Your task to perform on an android device: turn on notifications settings in the gmail app Image 0: 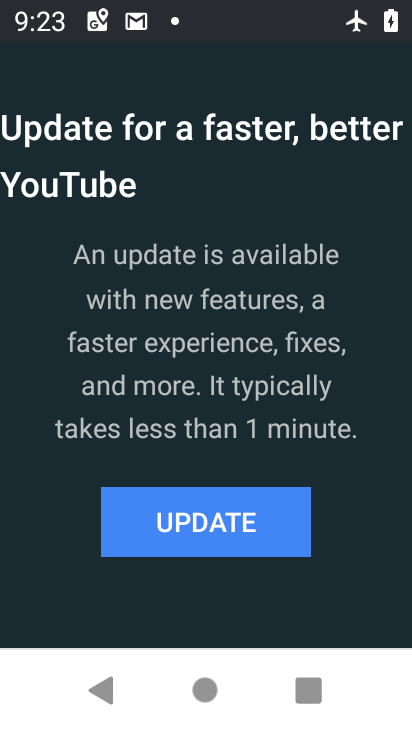
Step 0: press home button
Your task to perform on an android device: turn on notifications settings in the gmail app Image 1: 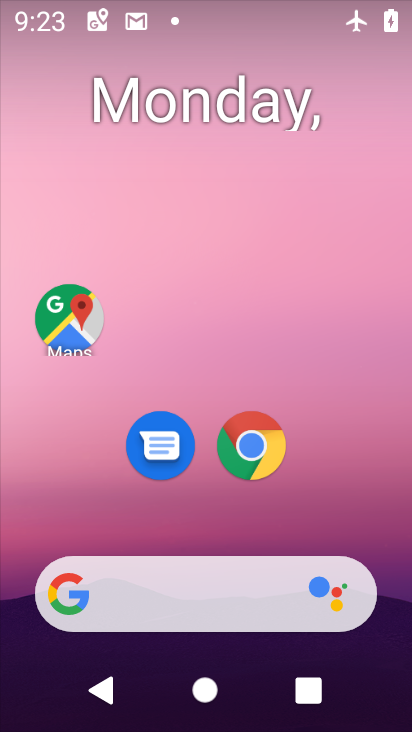
Step 1: drag from (248, 668) to (247, 0)
Your task to perform on an android device: turn on notifications settings in the gmail app Image 2: 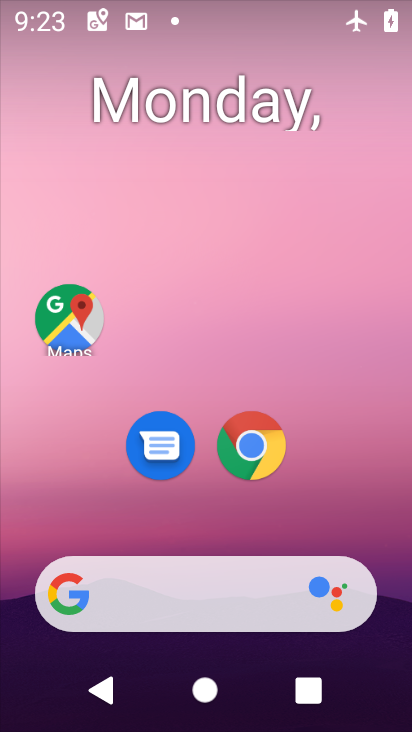
Step 2: drag from (256, 696) to (363, 24)
Your task to perform on an android device: turn on notifications settings in the gmail app Image 3: 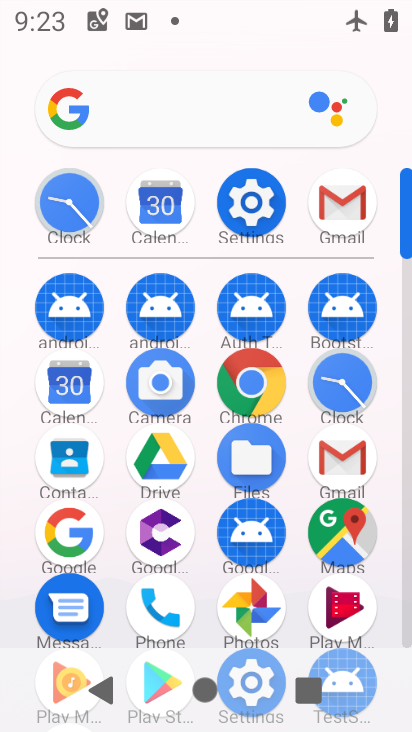
Step 3: click (246, 200)
Your task to perform on an android device: turn on notifications settings in the gmail app Image 4: 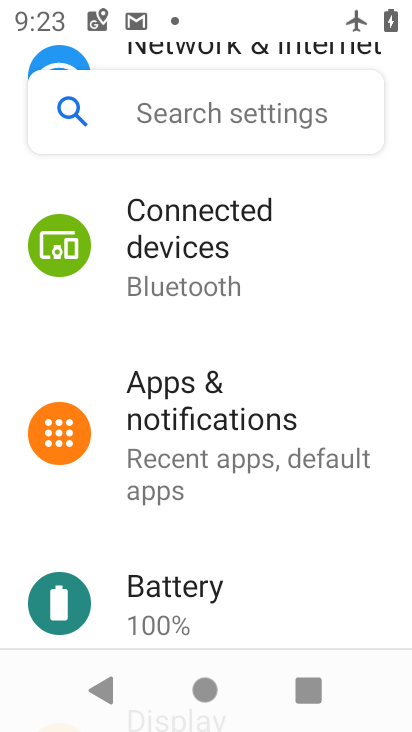
Step 4: click (257, 467)
Your task to perform on an android device: turn on notifications settings in the gmail app Image 5: 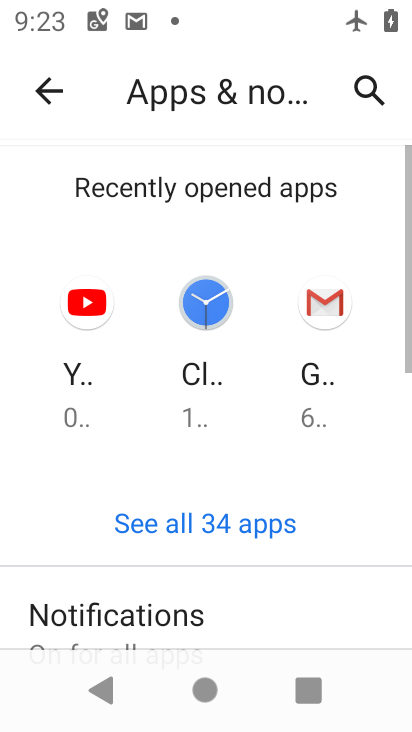
Step 5: drag from (248, 577) to (388, 19)
Your task to perform on an android device: turn on notifications settings in the gmail app Image 6: 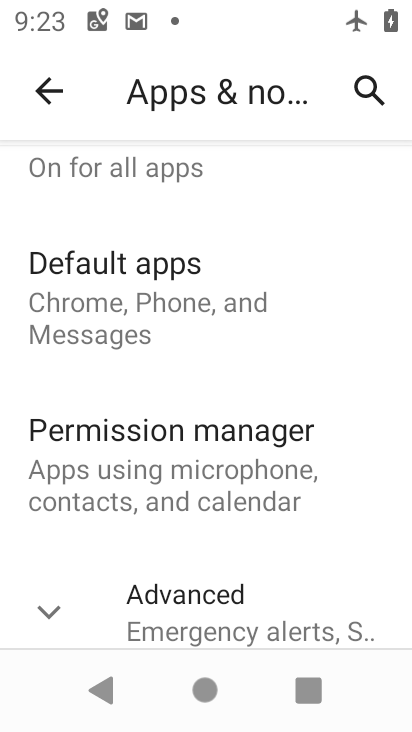
Step 6: drag from (271, 247) to (293, 520)
Your task to perform on an android device: turn on notifications settings in the gmail app Image 7: 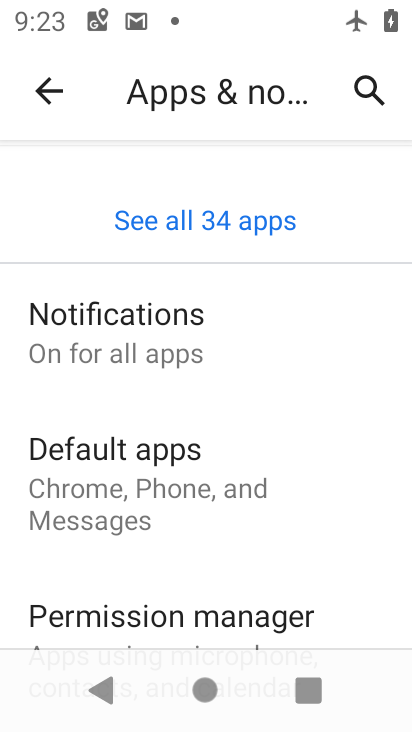
Step 7: click (198, 330)
Your task to perform on an android device: turn on notifications settings in the gmail app Image 8: 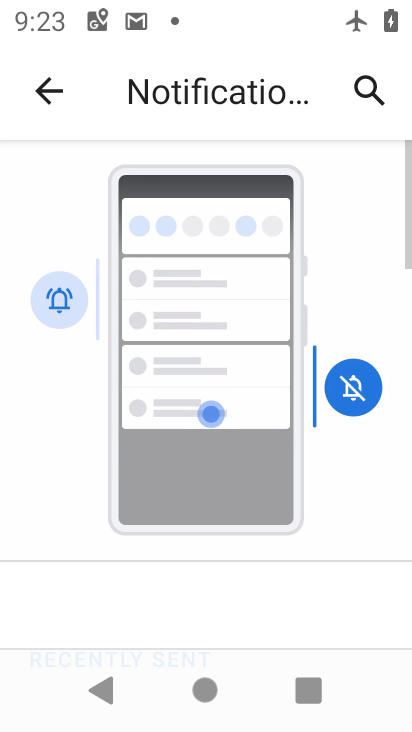
Step 8: drag from (244, 600) to (251, 151)
Your task to perform on an android device: turn on notifications settings in the gmail app Image 9: 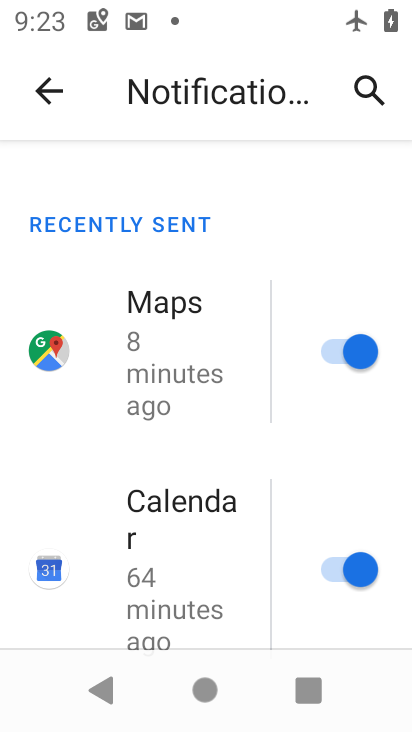
Step 9: drag from (257, 531) to (298, 62)
Your task to perform on an android device: turn on notifications settings in the gmail app Image 10: 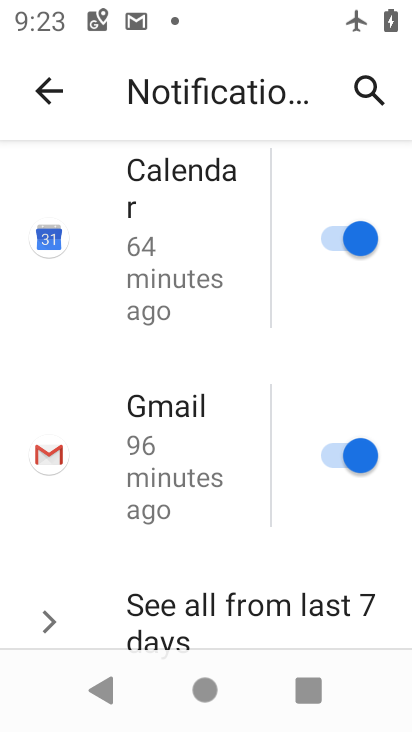
Step 10: click (346, 447)
Your task to perform on an android device: turn on notifications settings in the gmail app Image 11: 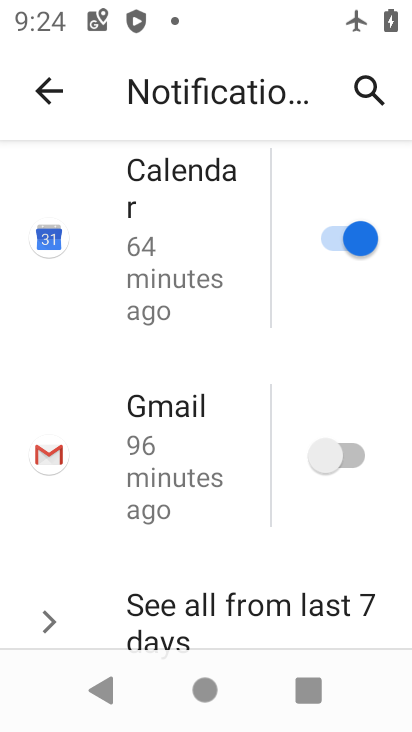
Step 11: task complete